Your task to perform on an android device: change the clock display to digital Image 0: 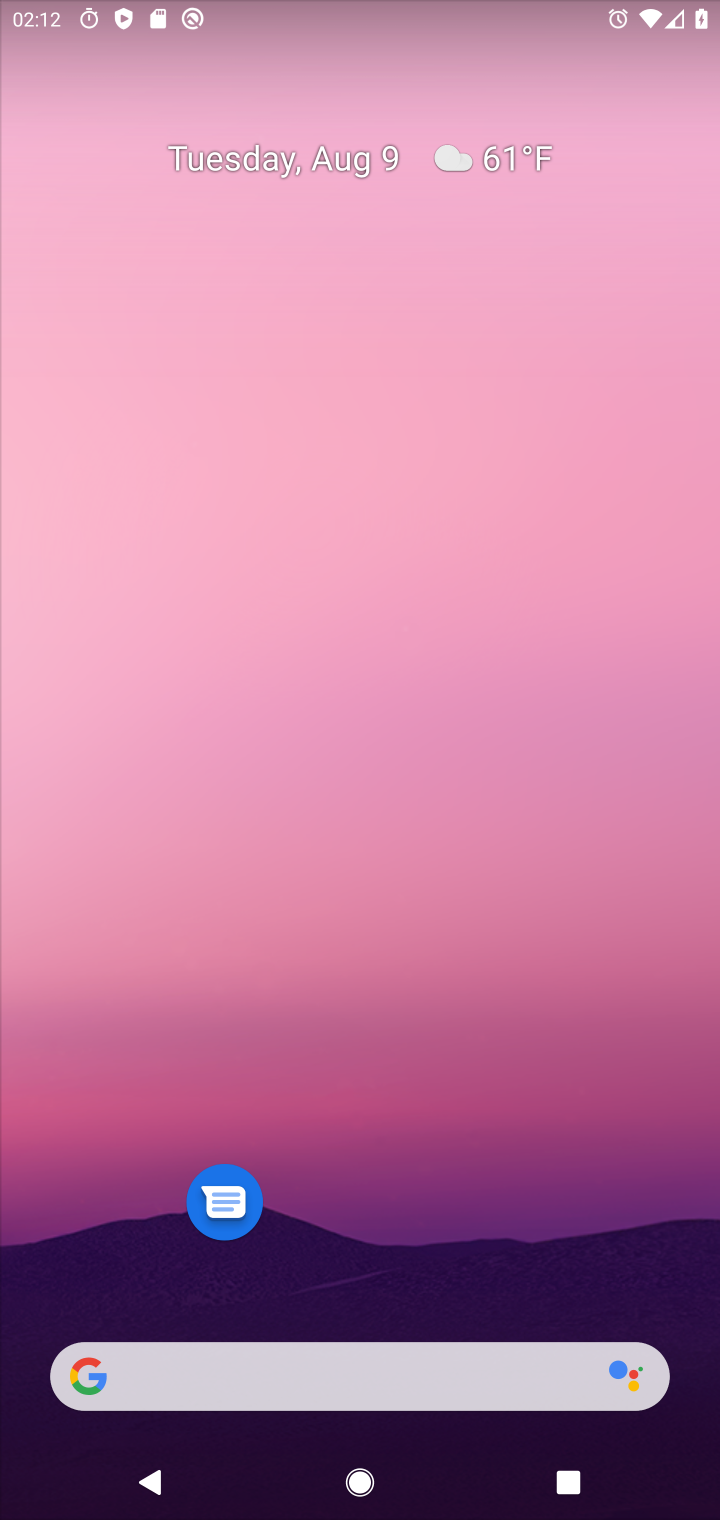
Step 0: drag from (476, 1351) to (497, 40)
Your task to perform on an android device: change the clock display to digital Image 1: 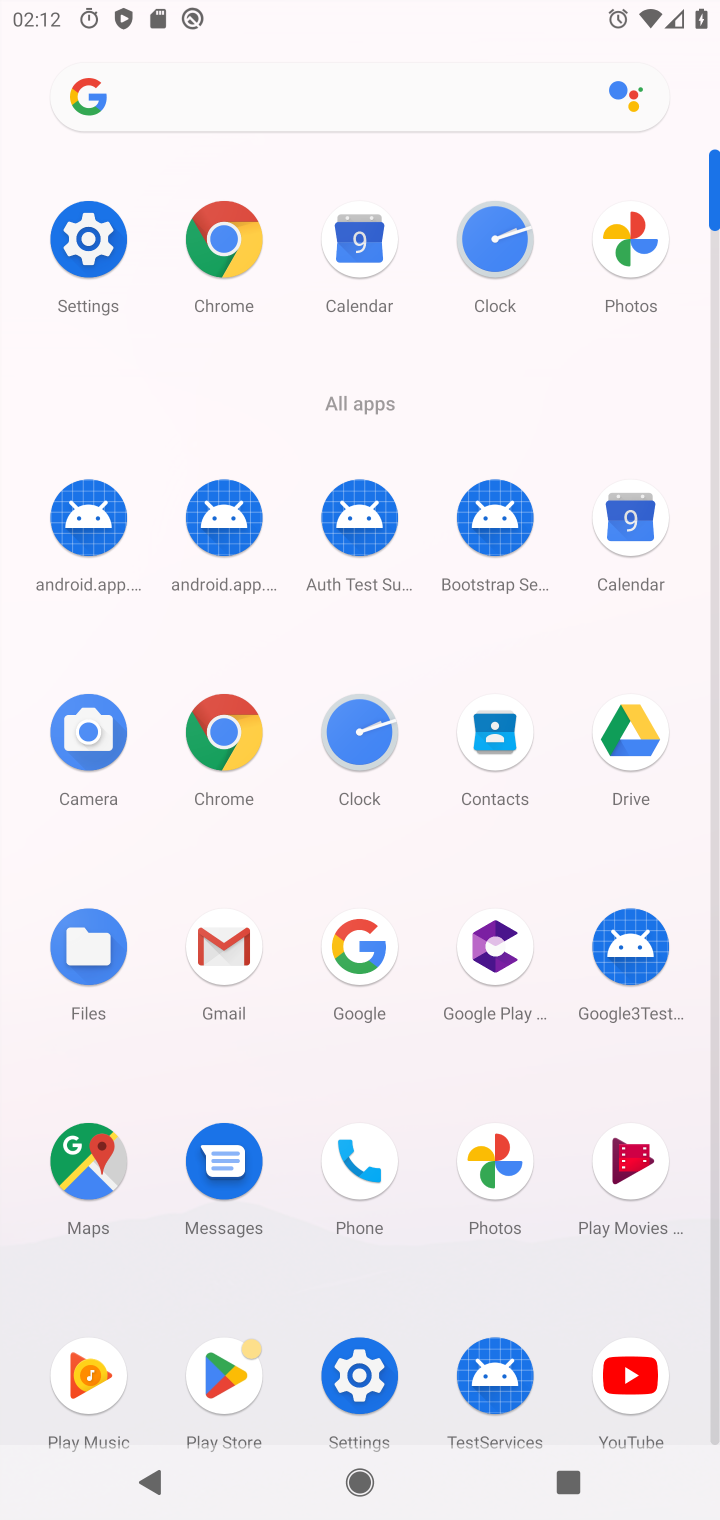
Step 1: click (376, 720)
Your task to perform on an android device: change the clock display to digital Image 2: 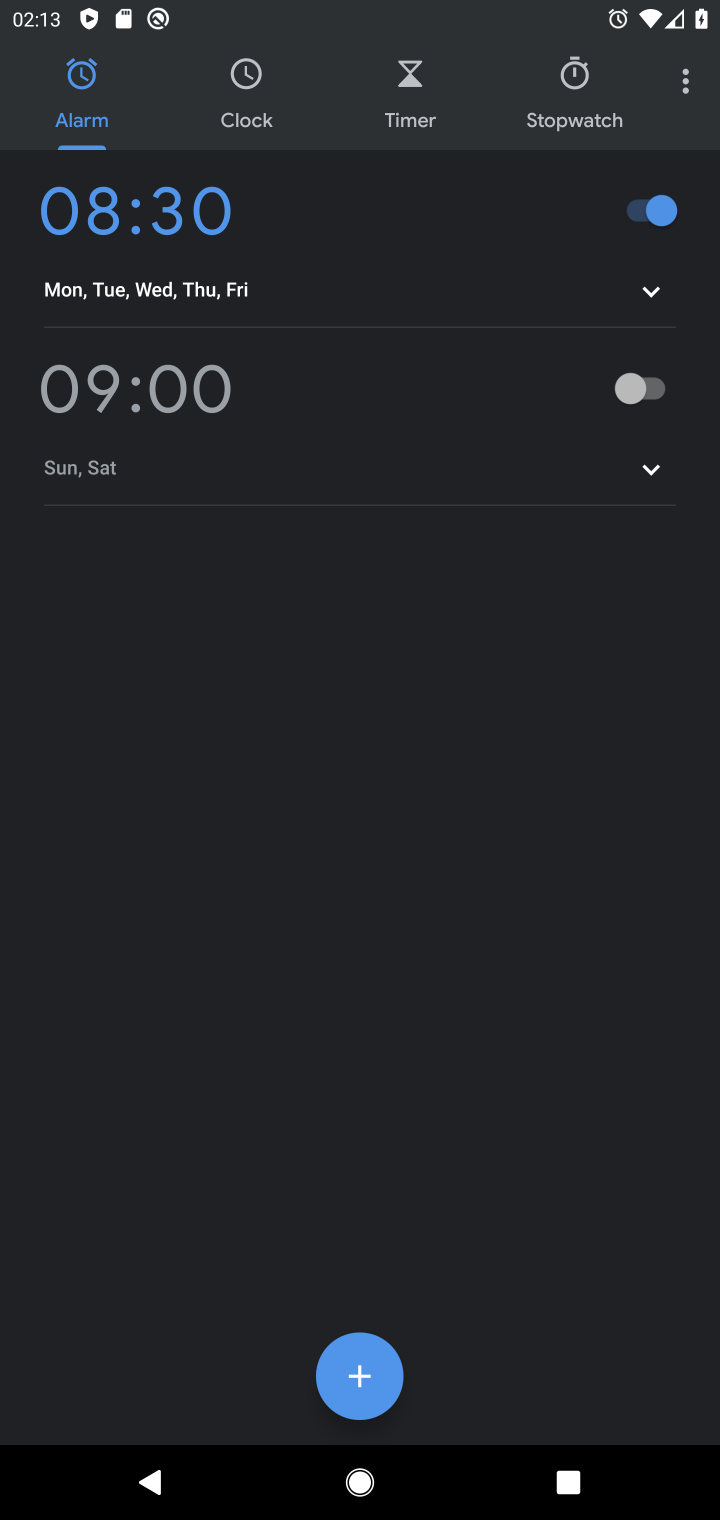
Step 2: click (661, 68)
Your task to perform on an android device: change the clock display to digital Image 3: 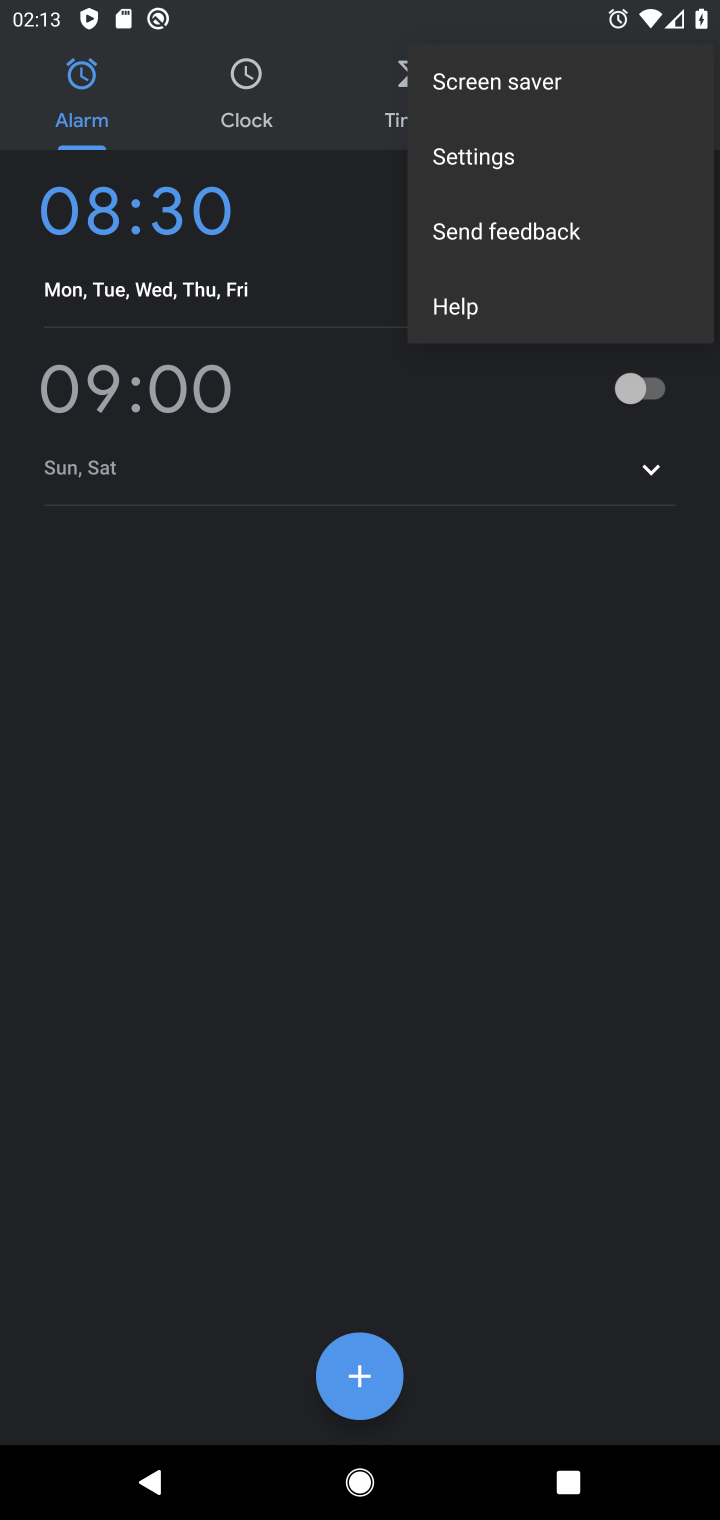
Step 3: click (525, 153)
Your task to perform on an android device: change the clock display to digital Image 4: 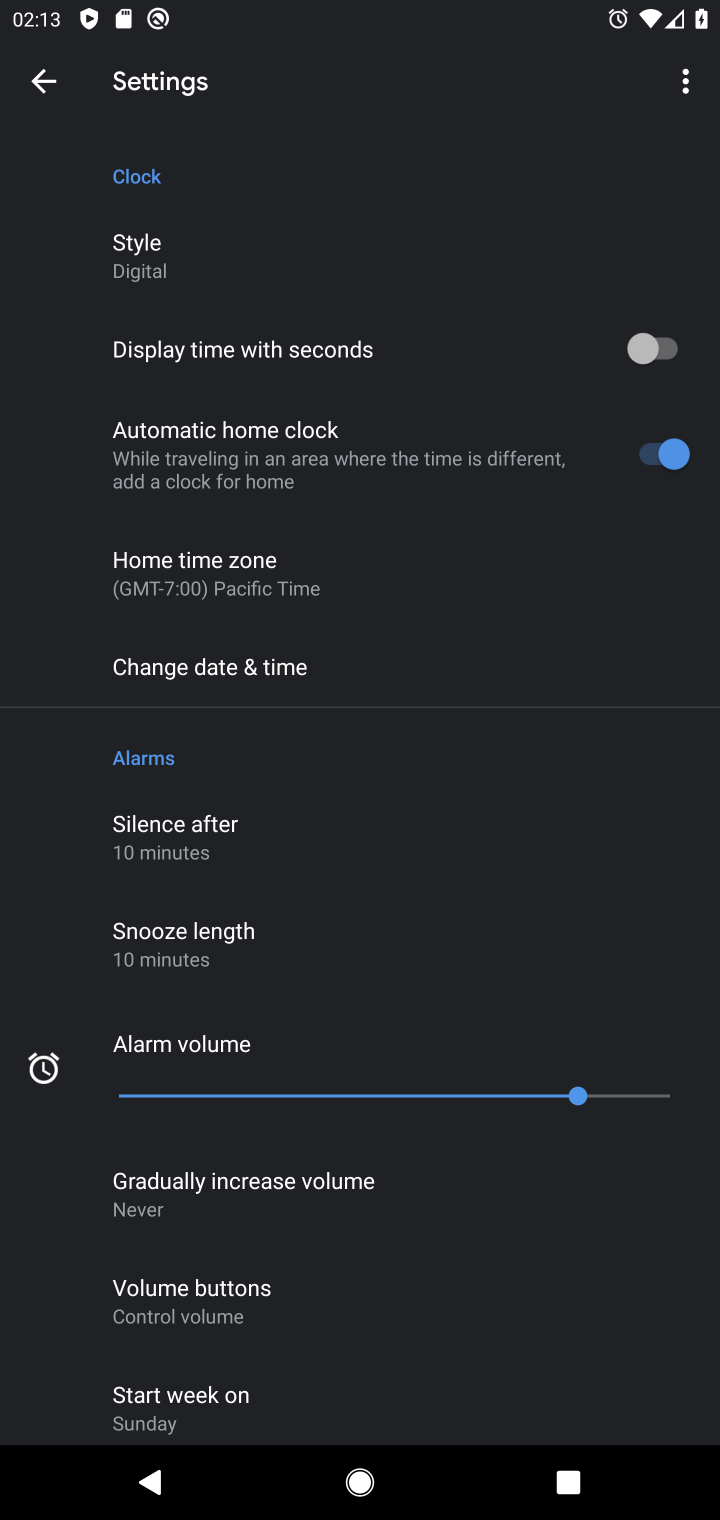
Step 4: click (493, 346)
Your task to perform on an android device: change the clock display to digital Image 5: 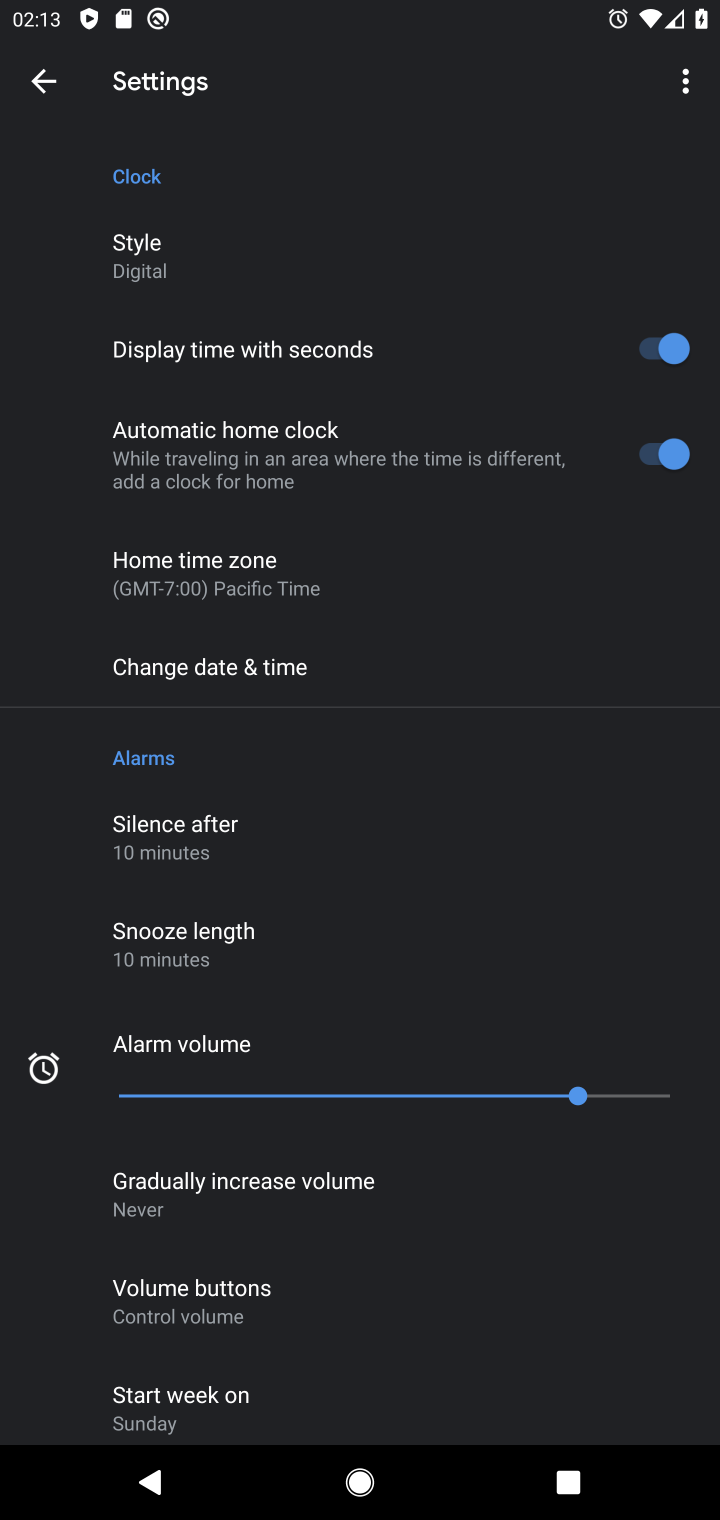
Step 5: task complete